Your task to perform on an android device: Open display settings Image 0: 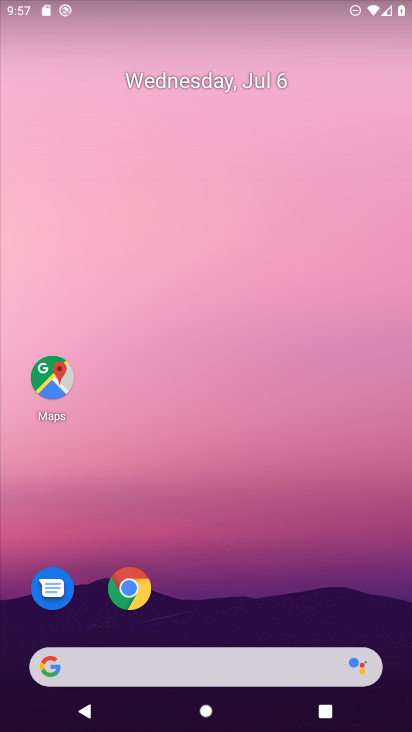
Step 0: drag from (228, 581) to (267, 138)
Your task to perform on an android device: Open display settings Image 1: 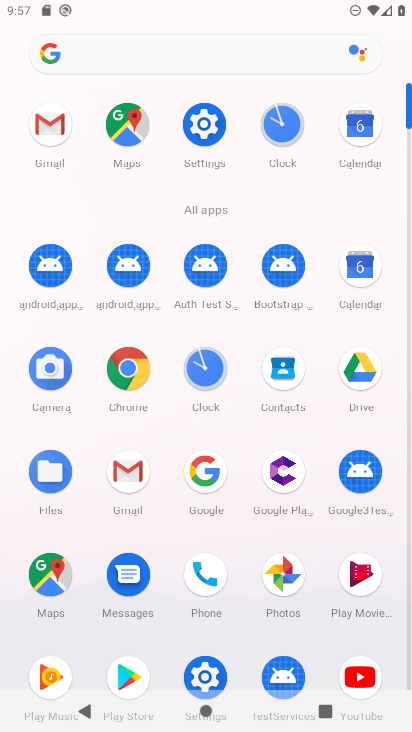
Step 1: click (216, 143)
Your task to perform on an android device: Open display settings Image 2: 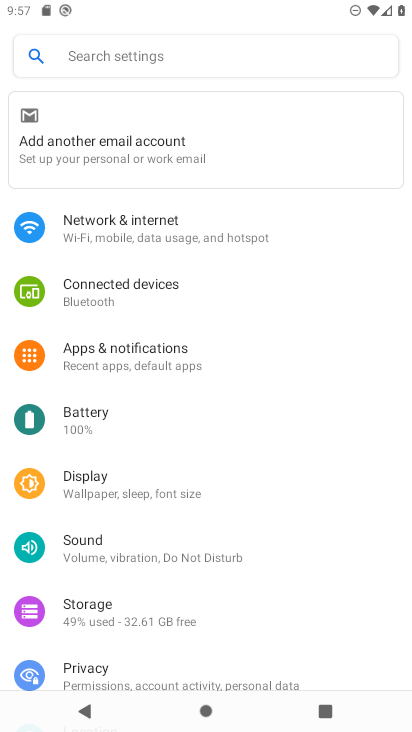
Step 2: click (100, 486)
Your task to perform on an android device: Open display settings Image 3: 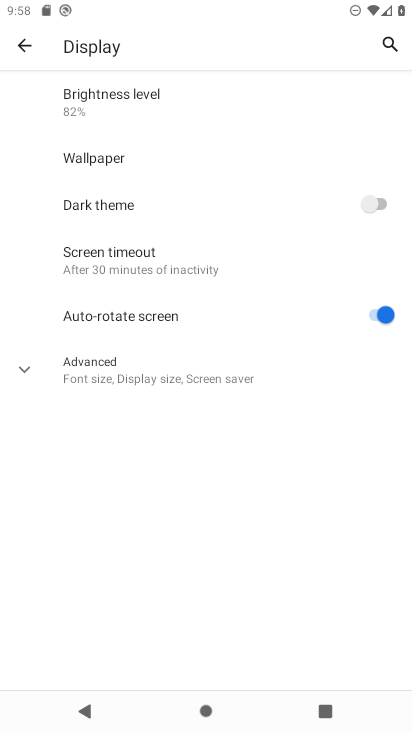
Step 3: task complete